Your task to perform on an android device: turn off smart reply in the gmail app Image 0: 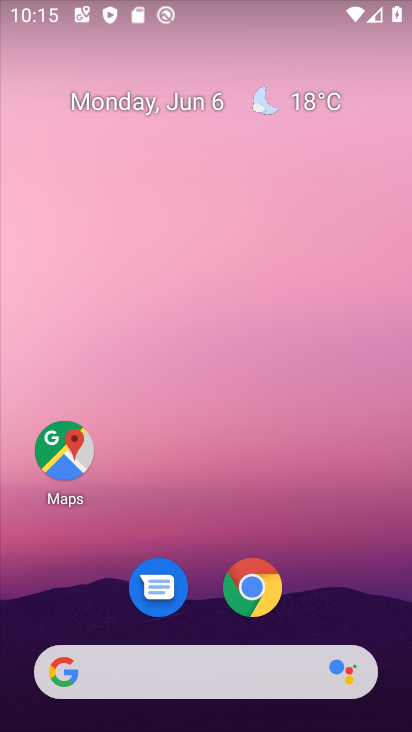
Step 0: drag from (347, 533) to (311, 182)
Your task to perform on an android device: turn off smart reply in the gmail app Image 1: 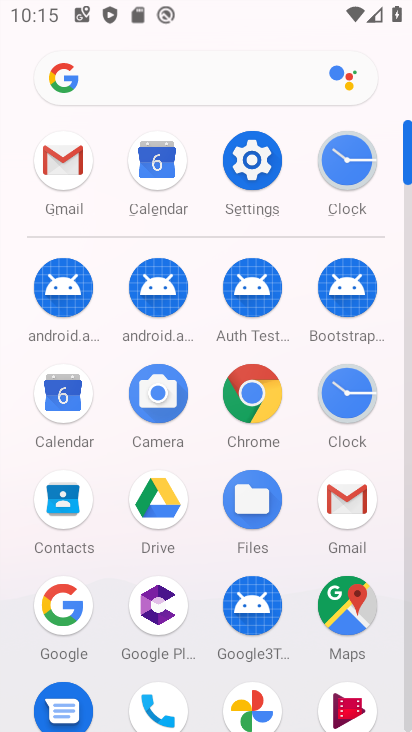
Step 1: click (121, 190)
Your task to perform on an android device: turn off smart reply in the gmail app Image 2: 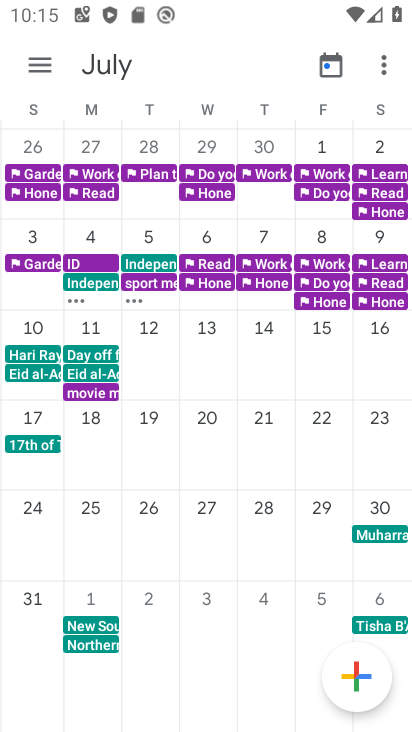
Step 2: press home button
Your task to perform on an android device: turn off smart reply in the gmail app Image 3: 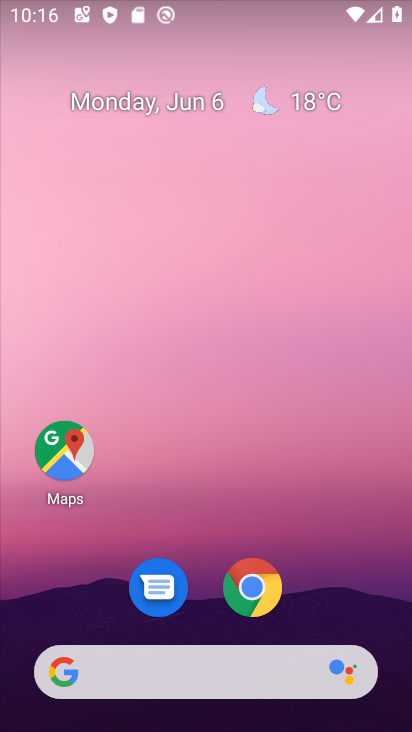
Step 3: drag from (348, 569) to (353, 76)
Your task to perform on an android device: turn off smart reply in the gmail app Image 4: 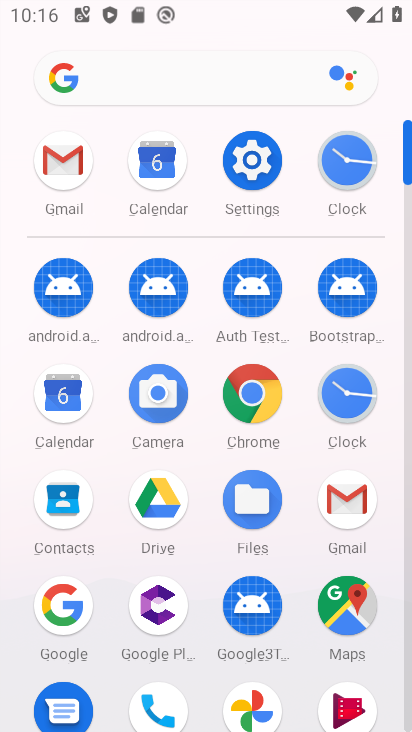
Step 4: click (69, 168)
Your task to perform on an android device: turn off smart reply in the gmail app Image 5: 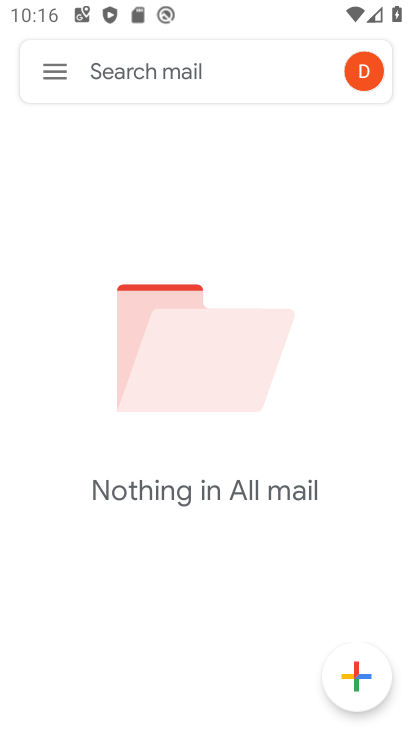
Step 5: click (49, 69)
Your task to perform on an android device: turn off smart reply in the gmail app Image 6: 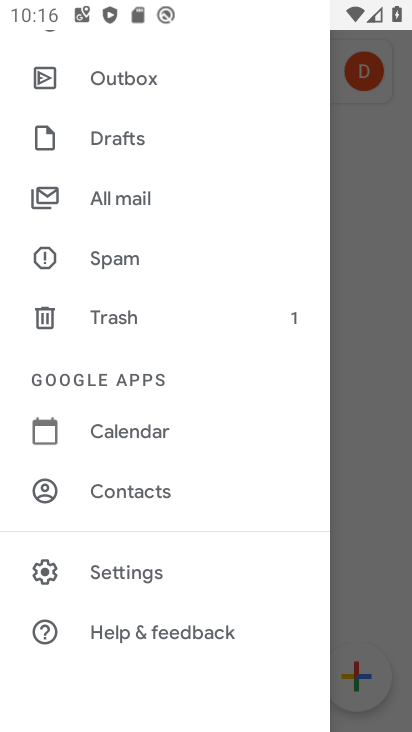
Step 6: click (117, 572)
Your task to perform on an android device: turn off smart reply in the gmail app Image 7: 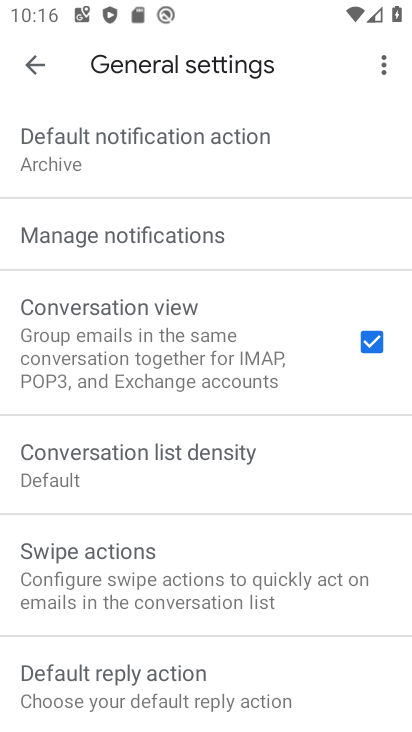
Step 7: drag from (135, 549) to (156, 243)
Your task to perform on an android device: turn off smart reply in the gmail app Image 8: 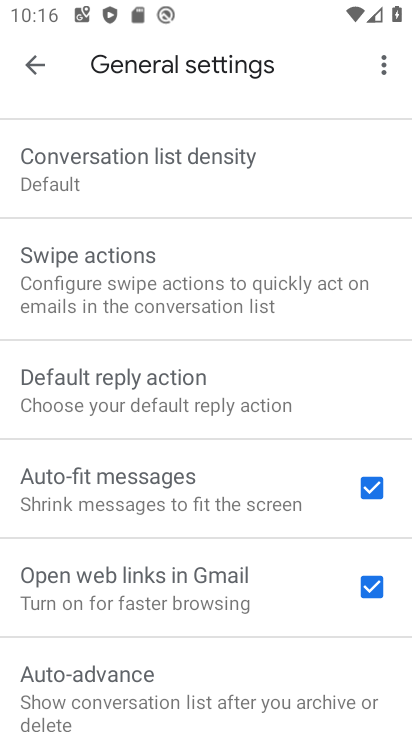
Step 8: click (163, 387)
Your task to perform on an android device: turn off smart reply in the gmail app Image 9: 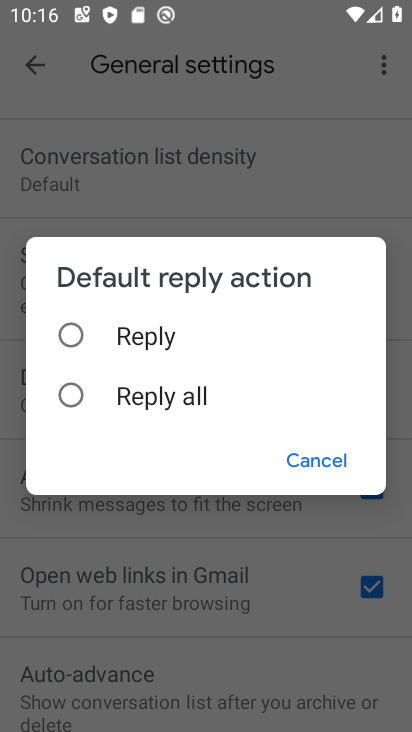
Step 9: click (328, 454)
Your task to perform on an android device: turn off smart reply in the gmail app Image 10: 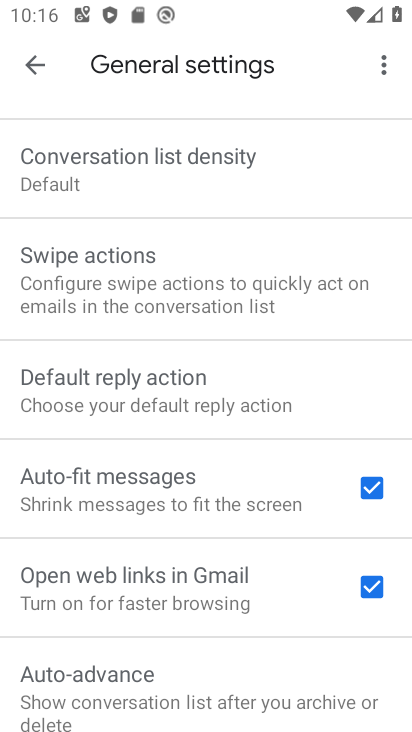
Step 10: drag from (173, 599) to (213, 199)
Your task to perform on an android device: turn off smart reply in the gmail app Image 11: 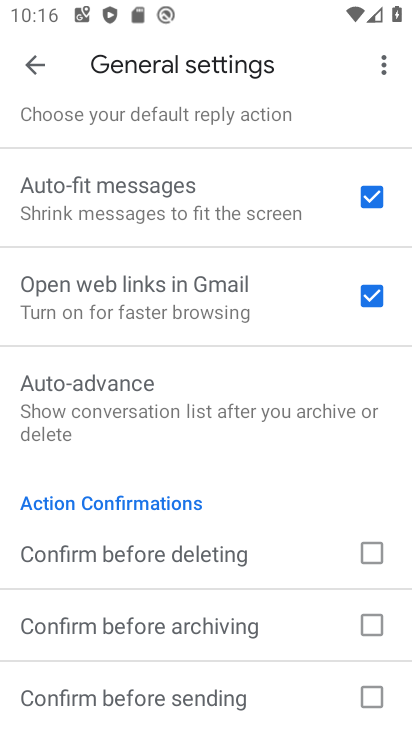
Step 11: drag from (117, 575) to (200, 239)
Your task to perform on an android device: turn off smart reply in the gmail app Image 12: 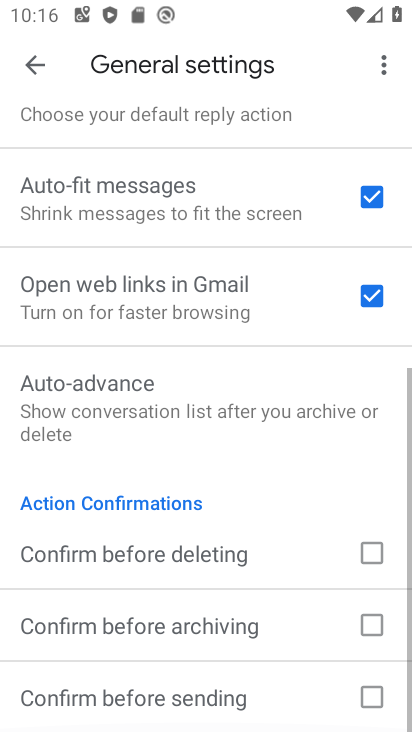
Step 12: drag from (253, 171) to (167, 627)
Your task to perform on an android device: turn off smart reply in the gmail app Image 13: 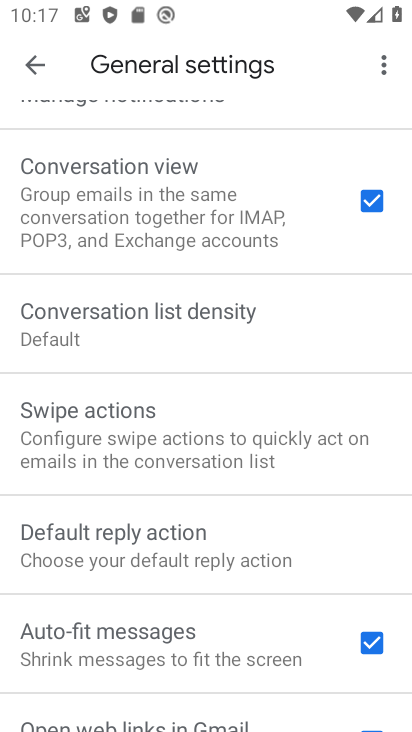
Step 13: drag from (193, 227) to (104, 680)
Your task to perform on an android device: turn off smart reply in the gmail app Image 14: 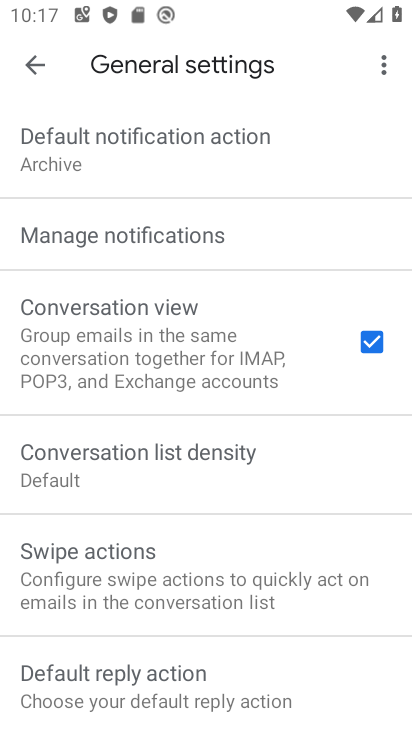
Step 14: click (396, 59)
Your task to perform on an android device: turn off smart reply in the gmail app Image 15: 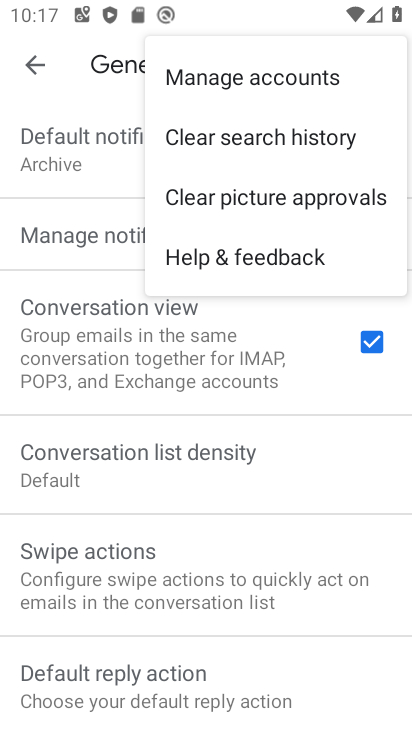
Step 15: click (46, 306)
Your task to perform on an android device: turn off smart reply in the gmail app Image 16: 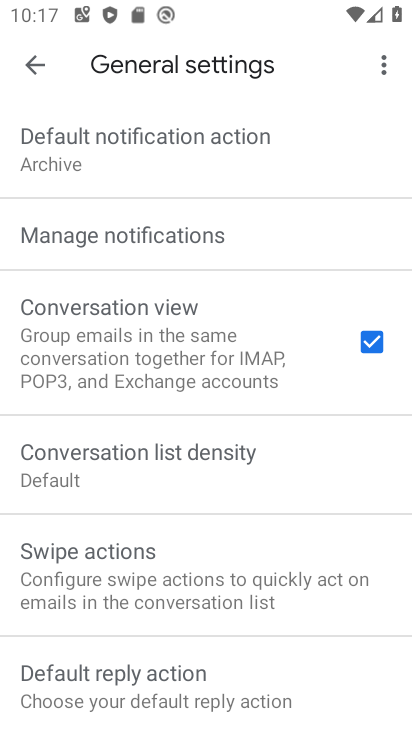
Step 16: drag from (181, 435) to (189, 37)
Your task to perform on an android device: turn off smart reply in the gmail app Image 17: 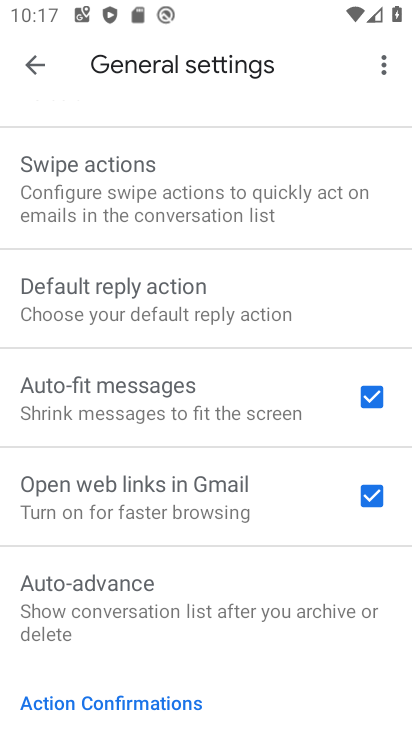
Step 17: drag from (96, 545) to (233, 140)
Your task to perform on an android device: turn off smart reply in the gmail app Image 18: 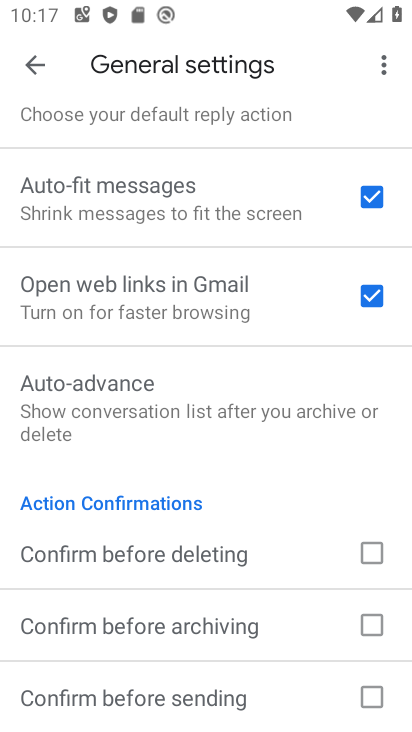
Step 18: drag from (100, 488) to (156, 207)
Your task to perform on an android device: turn off smart reply in the gmail app Image 19: 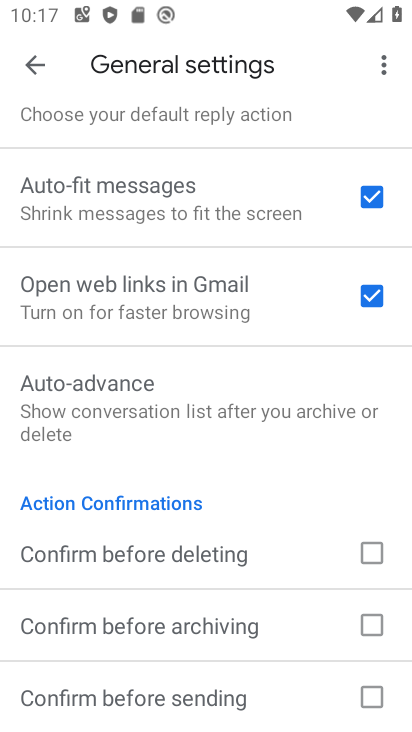
Step 19: drag from (78, 211) to (29, 635)
Your task to perform on an android device: turn off smart reply in the gmail app Image 20: 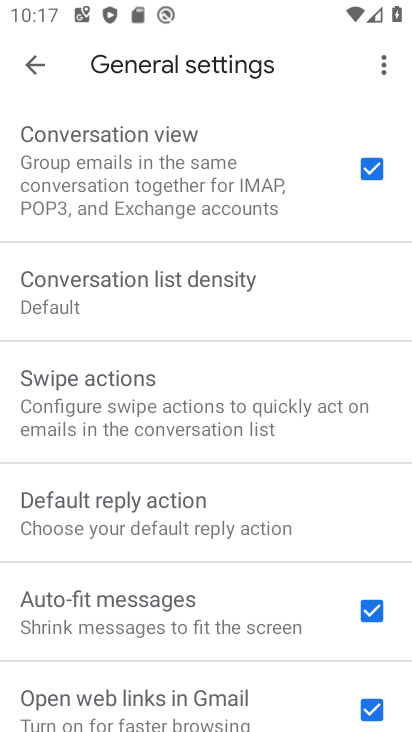
Step 20: click (125, 523)
Your task to perform on an android device: turn off smart reply in the gmail app Image 21: 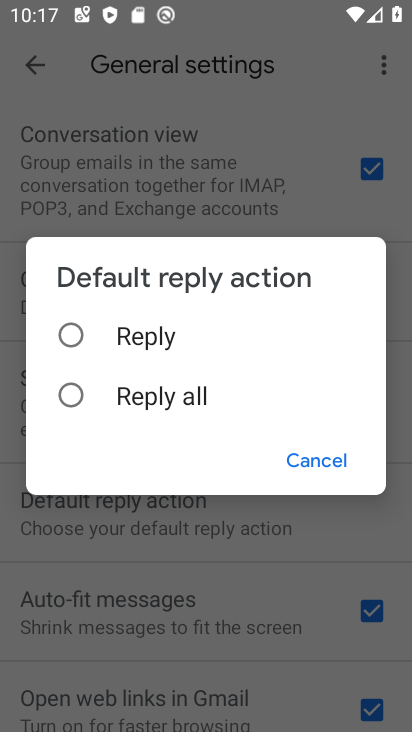
Step 21: click (301, 450)
Your task to perform on an android device: turn off smart reply in the gmail app Image 22: 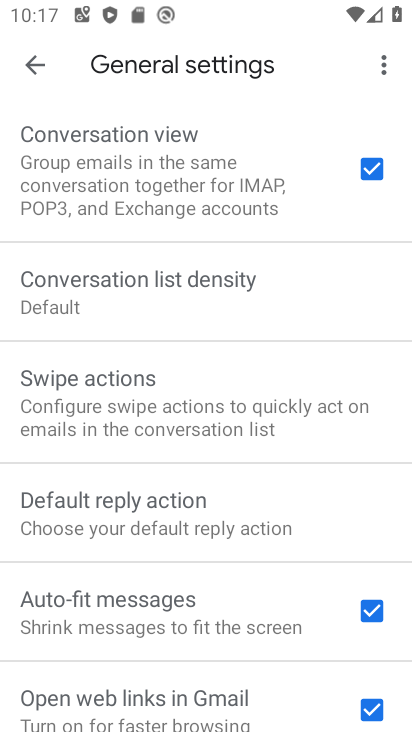
Step 22: drag from (196, 185) to (77, 731)
Your task to perform on an android device: turn off smart reply in the gmail app Image 23: 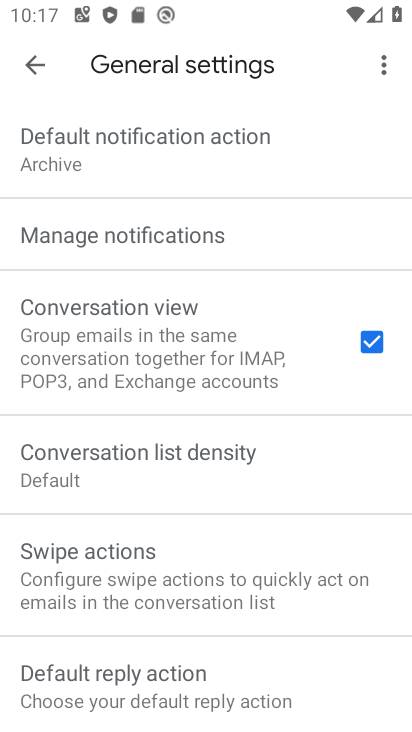
Step 23: click (282, 131)
Your task to perform on an android device: turn off smart reply in the gmail app Image 24: 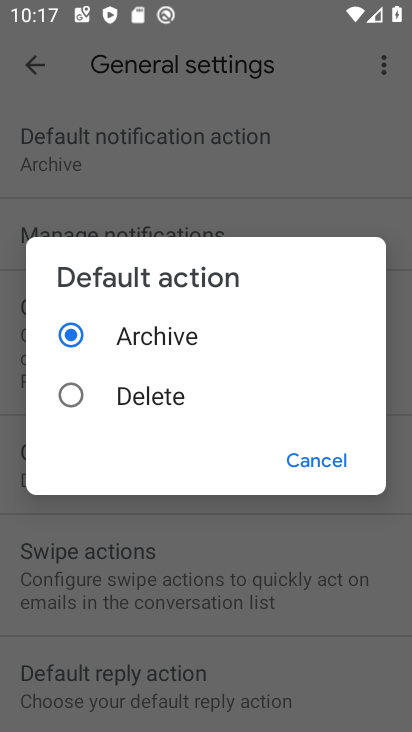
Step 24: click (312, 467)
Your task to perform on an android device: turn off smart reply in the gmail app Image 25: 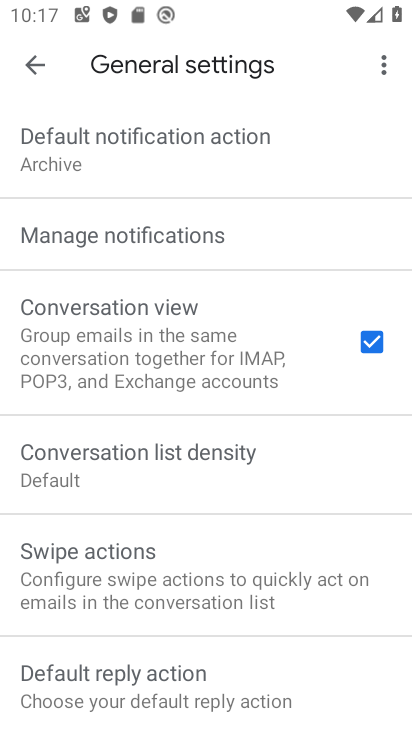
Step 25: task complete